Your task to perform on an android device: Open sound settings Image 0: 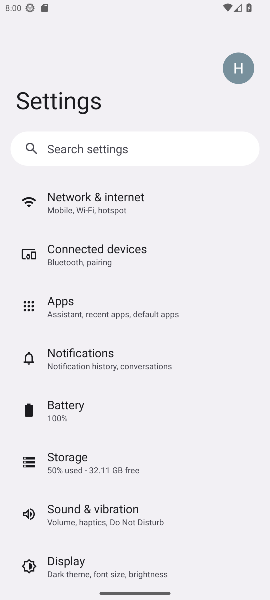
Step 0: drag from (186, 570) to (187, 384)
Your task to perform on an android device: Open sound settings Image 1: 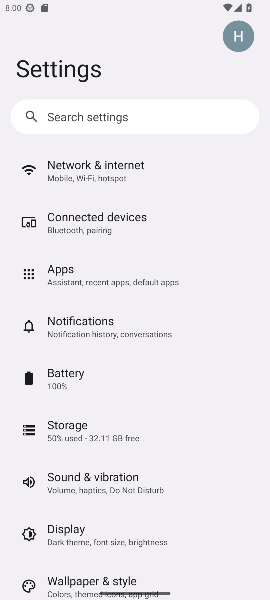
Step 1: click (85, 471)
Your task to perform on an android device: Open sound settings Image 2: 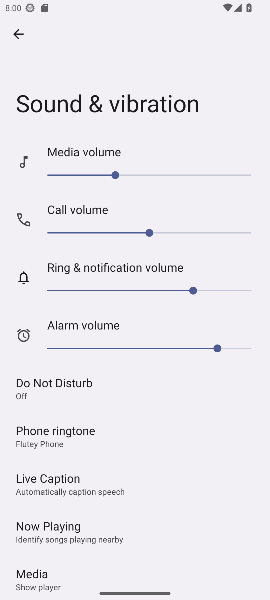
Step 2: task complete